Your task to perform on an android device: turn on airplane mode Image 0: 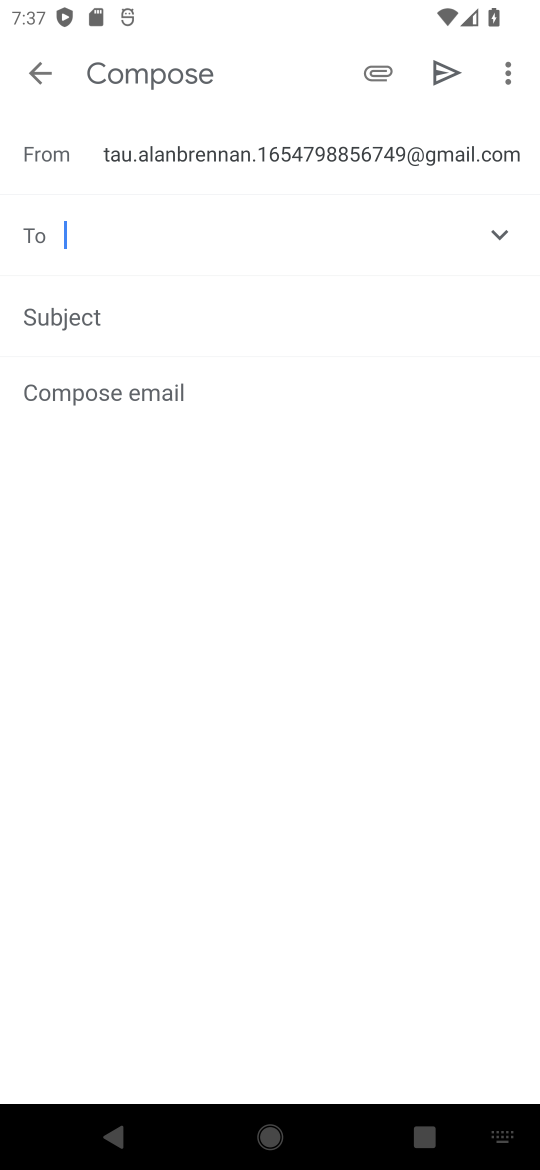
Step 0: press home button
Your task to perform on an android device: turn on airplane mode Image 1: 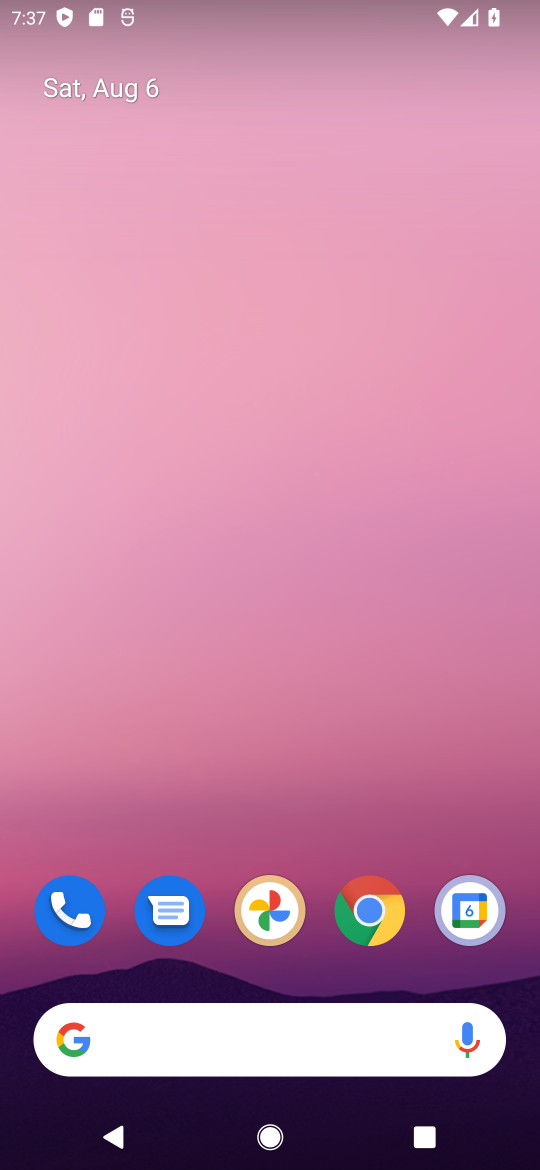
Step 1: drag from (512, 1096) to (476, 118)
Your task to perform on an android device: turn on airplane mode Image 2: 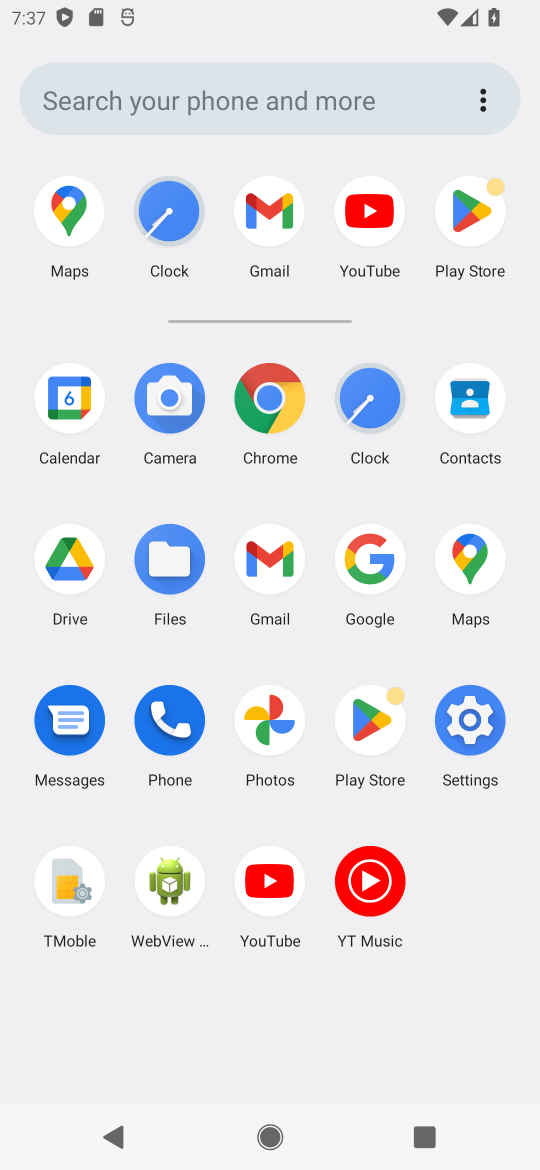
Step 2: click (461, 728)
Your task to perform on an android device: turn on airplane mode Image 3: 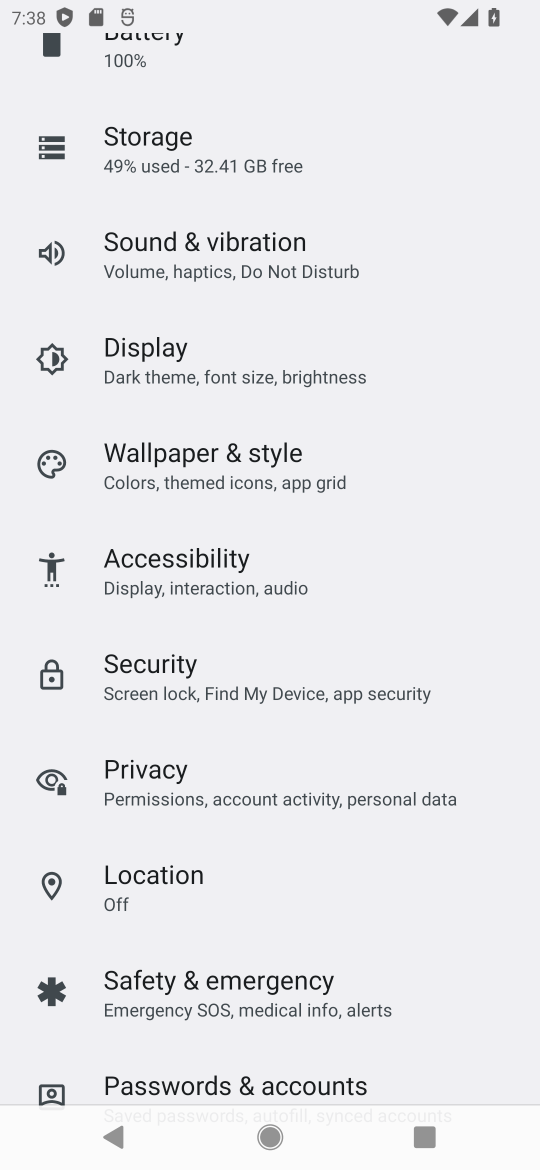
Step 3: drag from (424, 177) to (483, 790)
Your task to perform on an android device: turn on airplane mode Image 4: 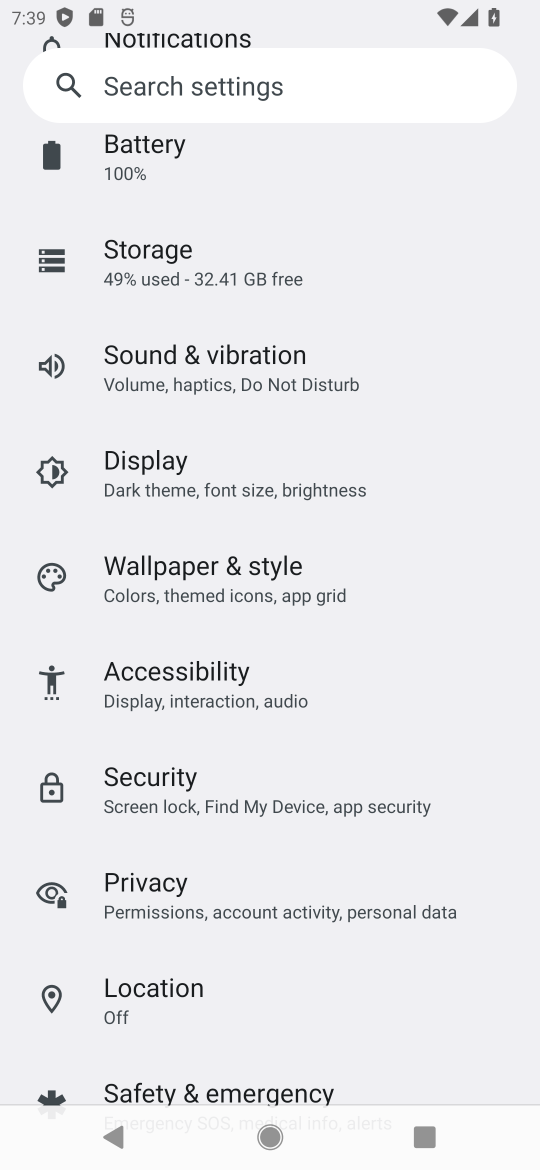
Step 4: drag from (388, 242) to (407, 1003)
Your task to perform on an android device: turn on airplane mode Image 5: 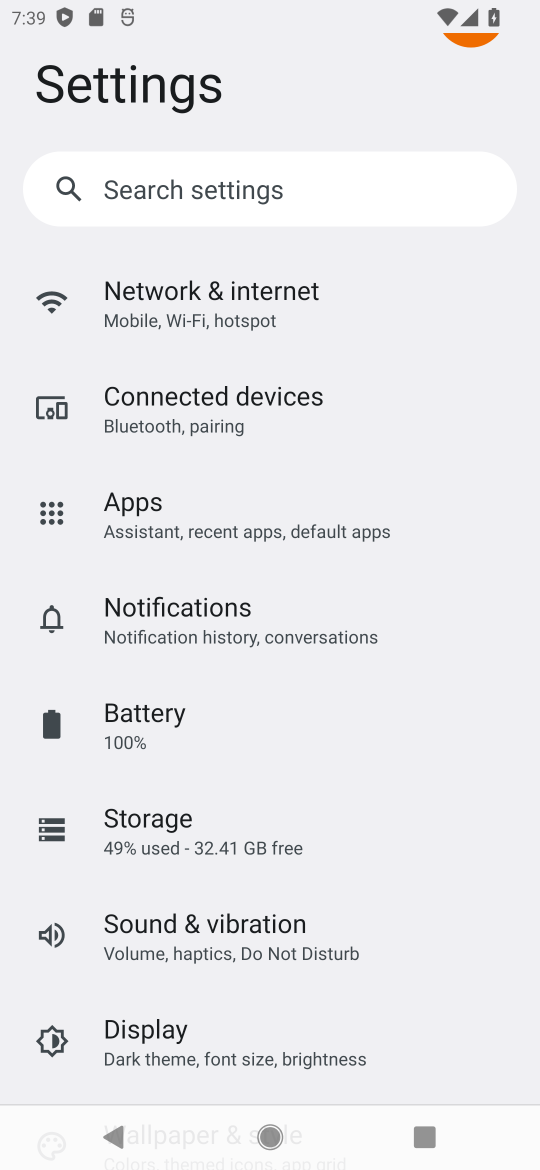
Step 5: click (244, 283)
Your task to perform on an android device: turn on airplane mode Image 6: 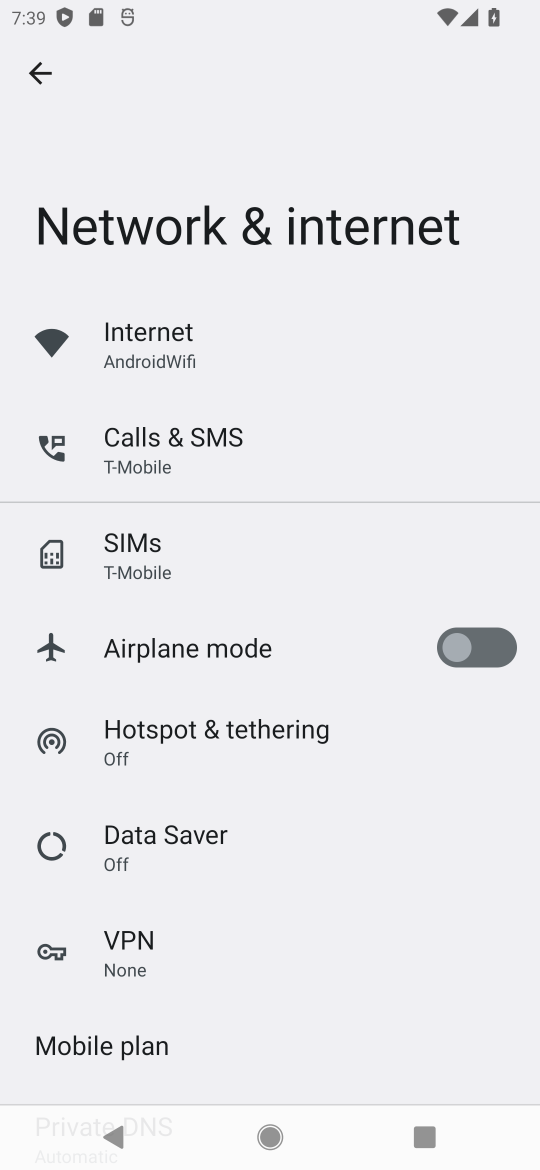
Step 6: click (509, 651)
Your task to perform on an android device: turn on airplane mode Image 7: 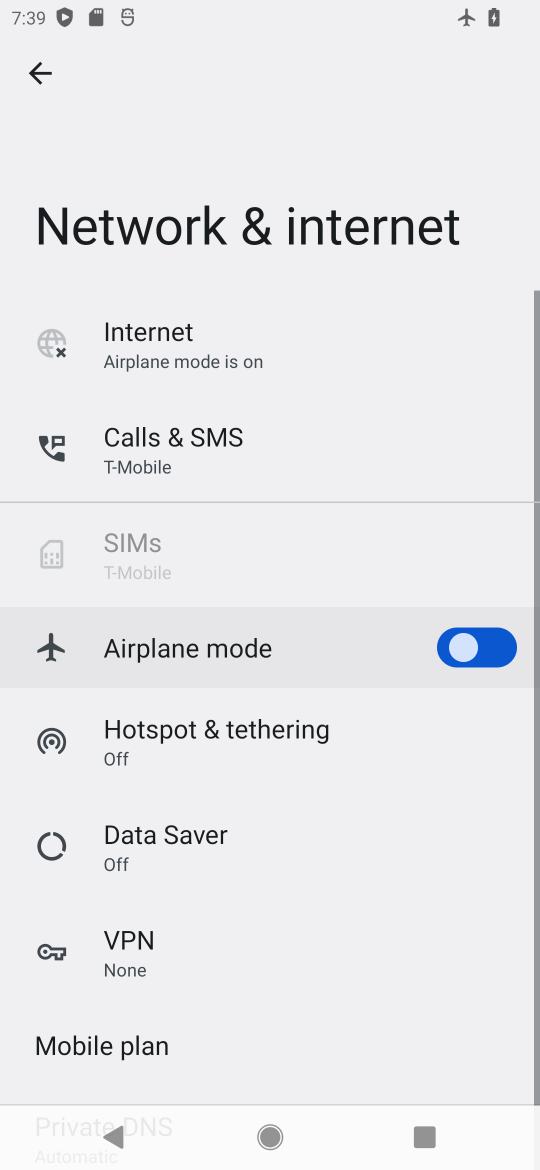
Step 7: task complete